Your task to perform on an android device: install app "Firefox Browser" Image 0: 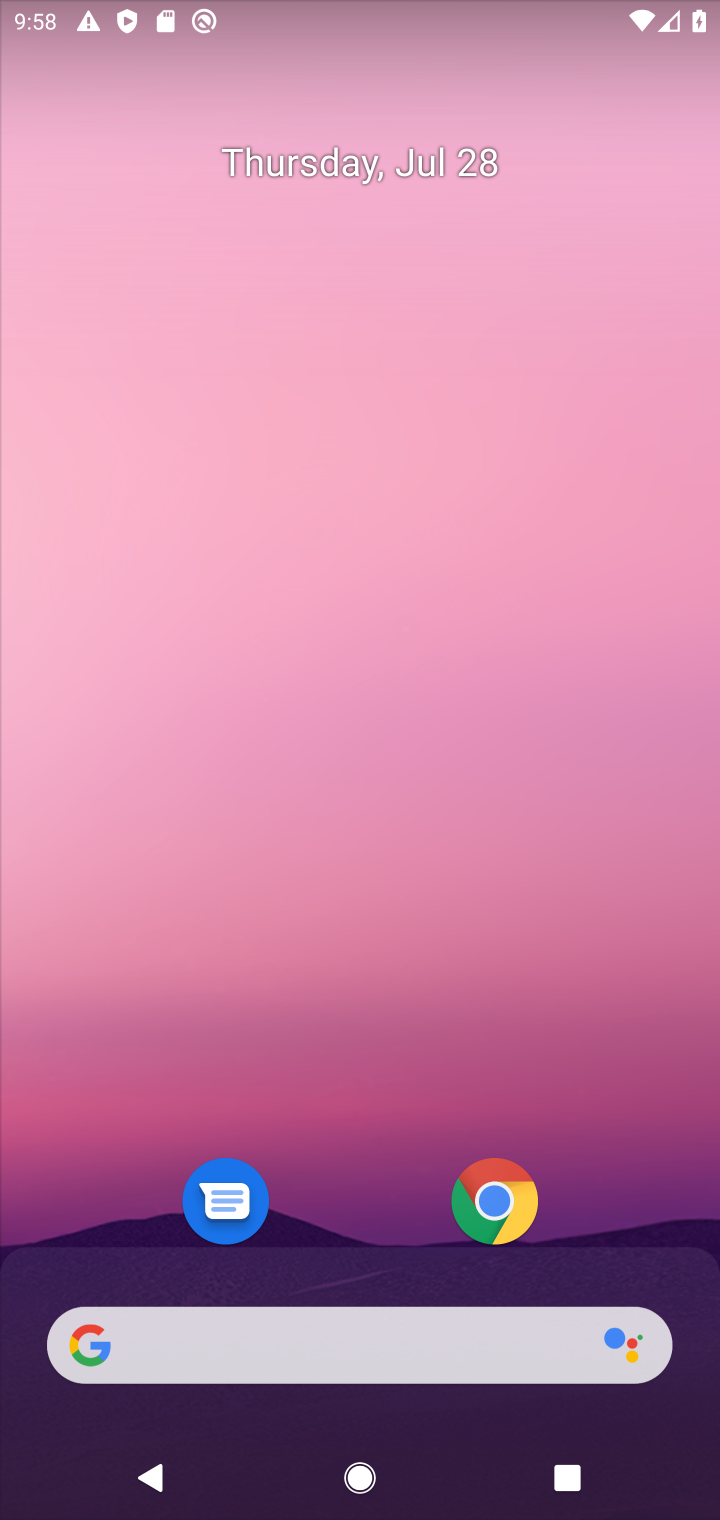
Step 0: drag from (313, 1259) to (352, 447)
Your task to perform on an android device: install app "Firefox Browser" Image 1: 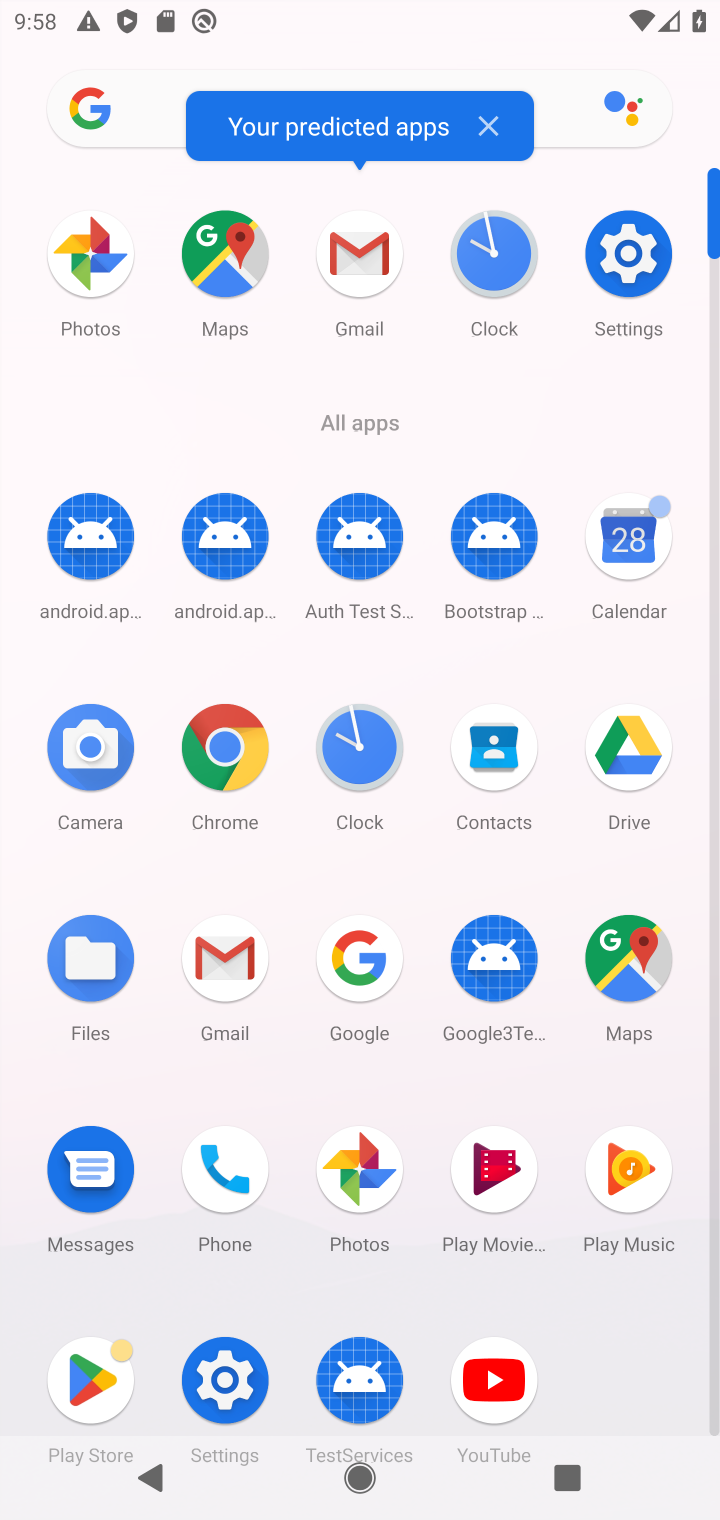
Step 1: drag from (285, 968) to (379, 477)
Your task to perform on an android device: install app "Firefox Browser" Image 2: 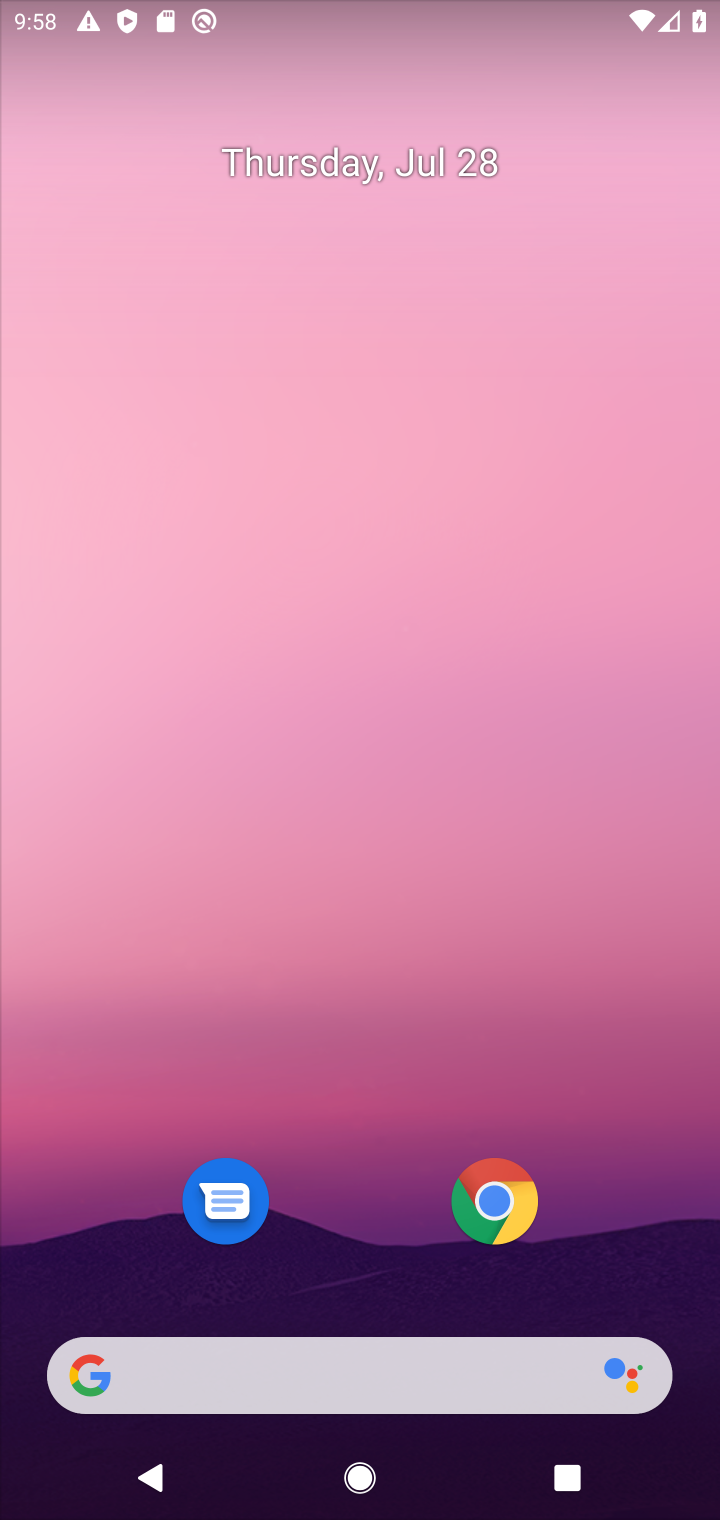
Step 2: drag from (356, 1444) to (368, 453)
Your task to perform on an android device: install app "Firefox Browser" Image 3: 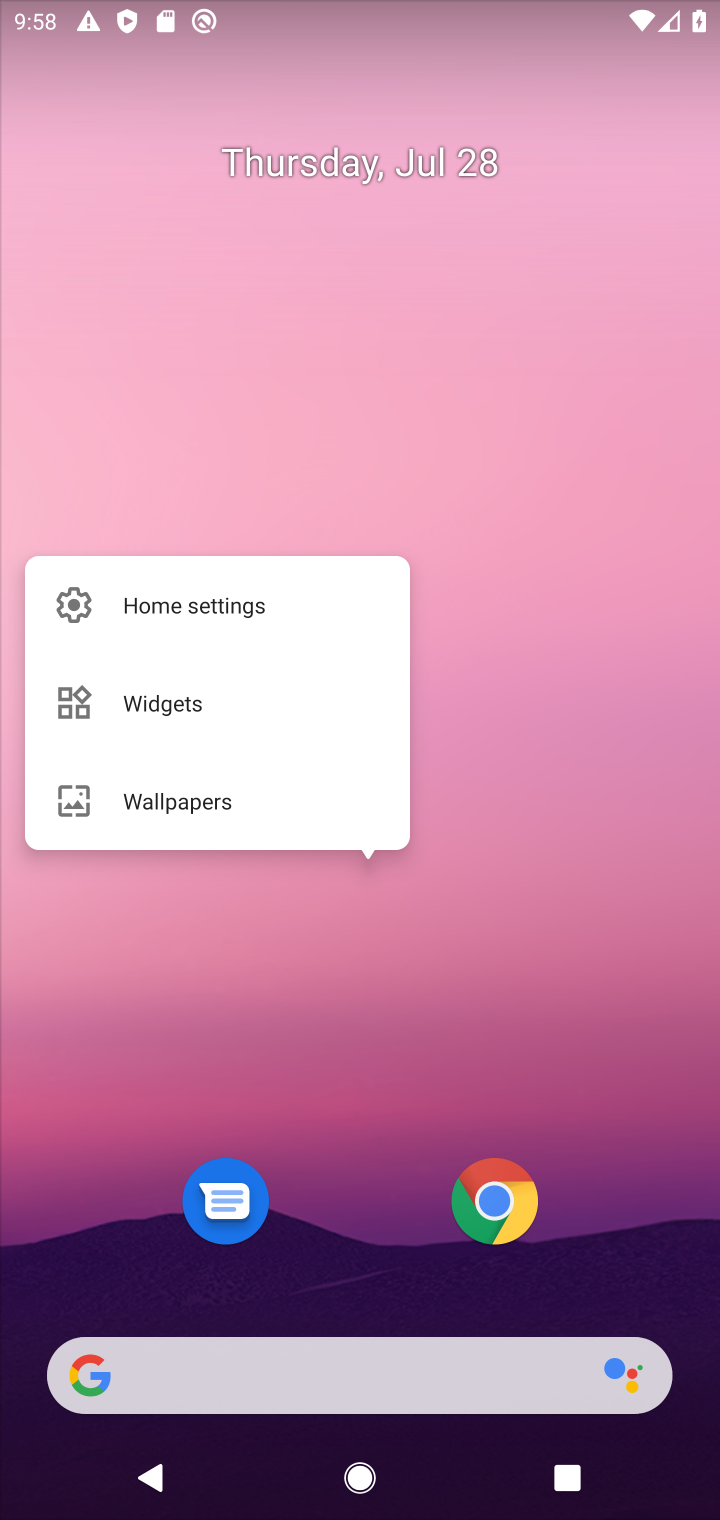
Step 3: click (646, 919)
Your task to perform on an android device: install app "Firefox Browser" Image 4: 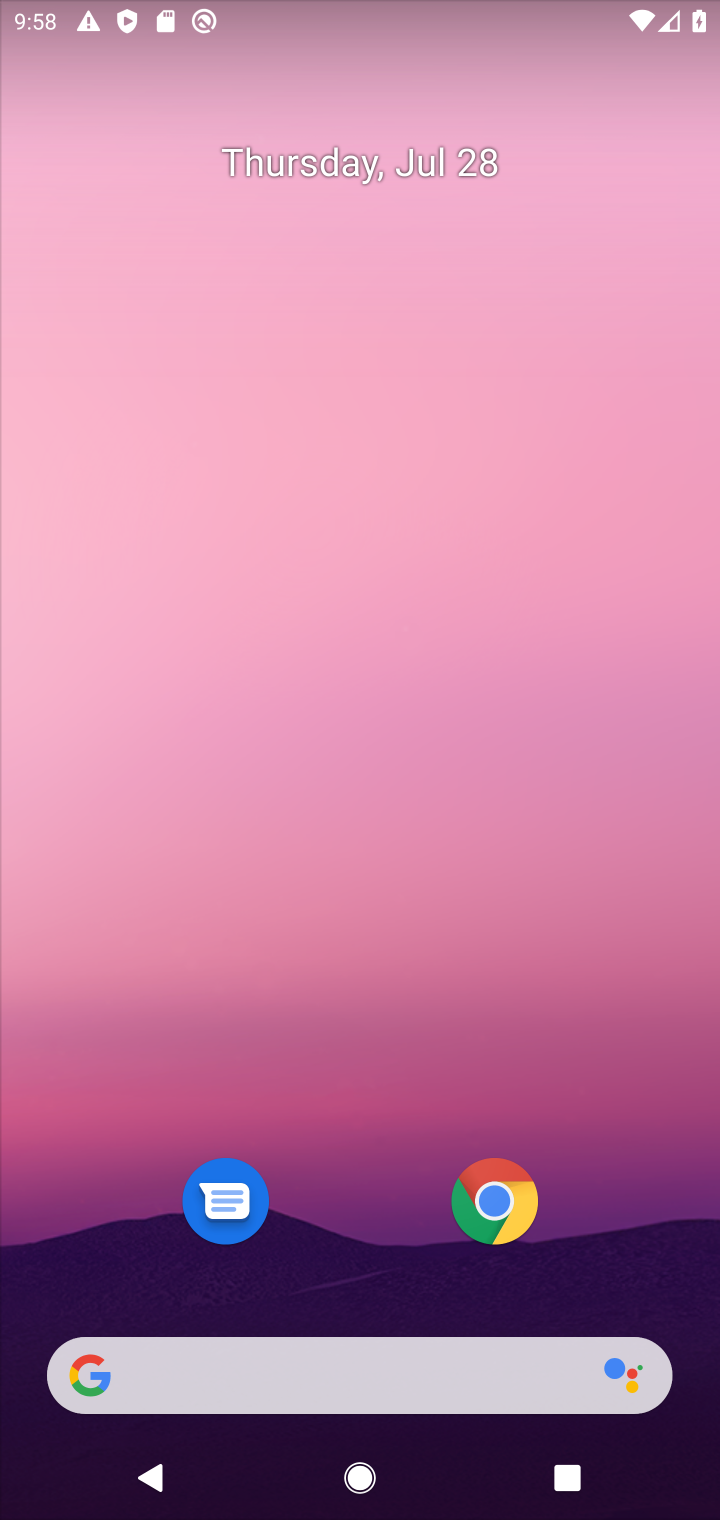
Step 4: drag from (333, 1385) to (291, 151)
Your task to perform on an android device: install app "Firefox Browser" Image 5: 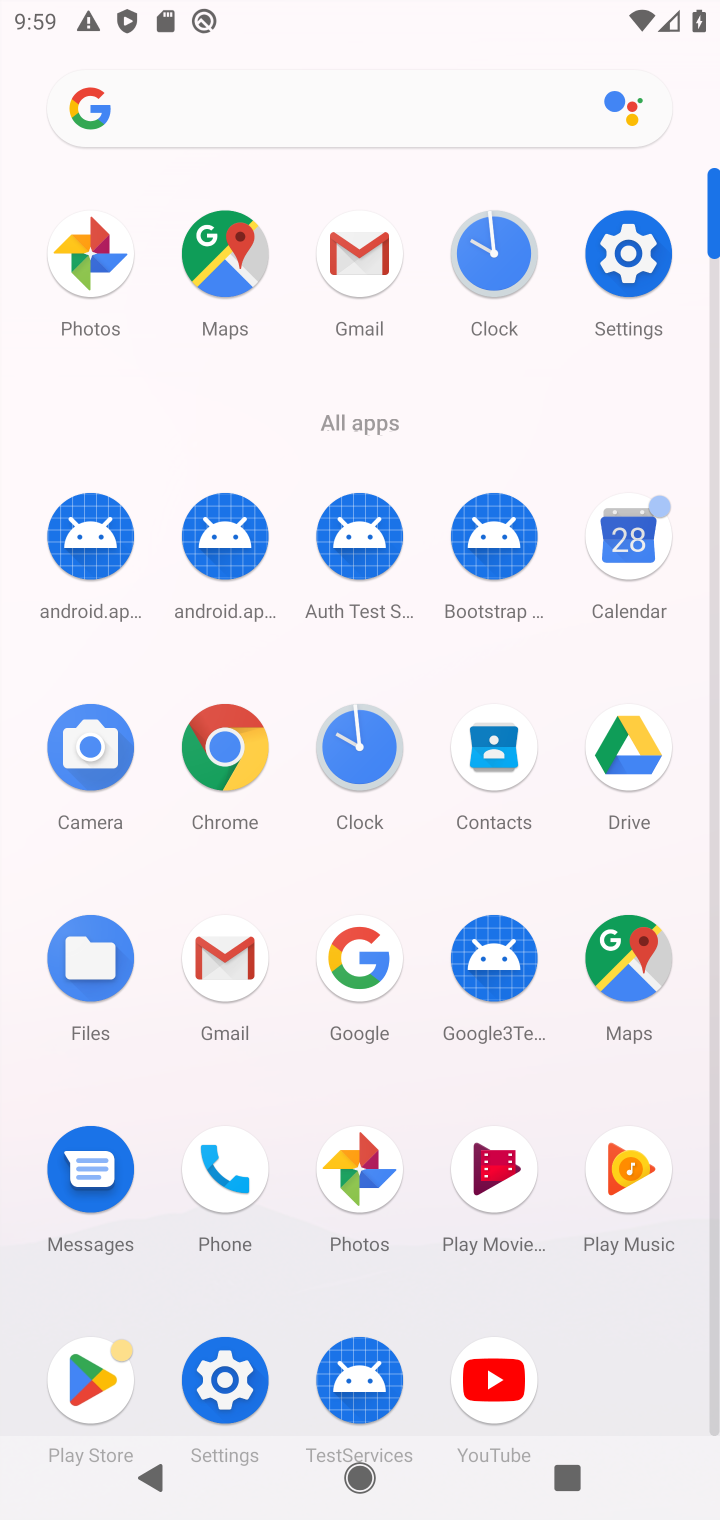
Step 5: click (71, 1370)
Your task to perform on an android device: install app "Firefox Browser" Image 6: 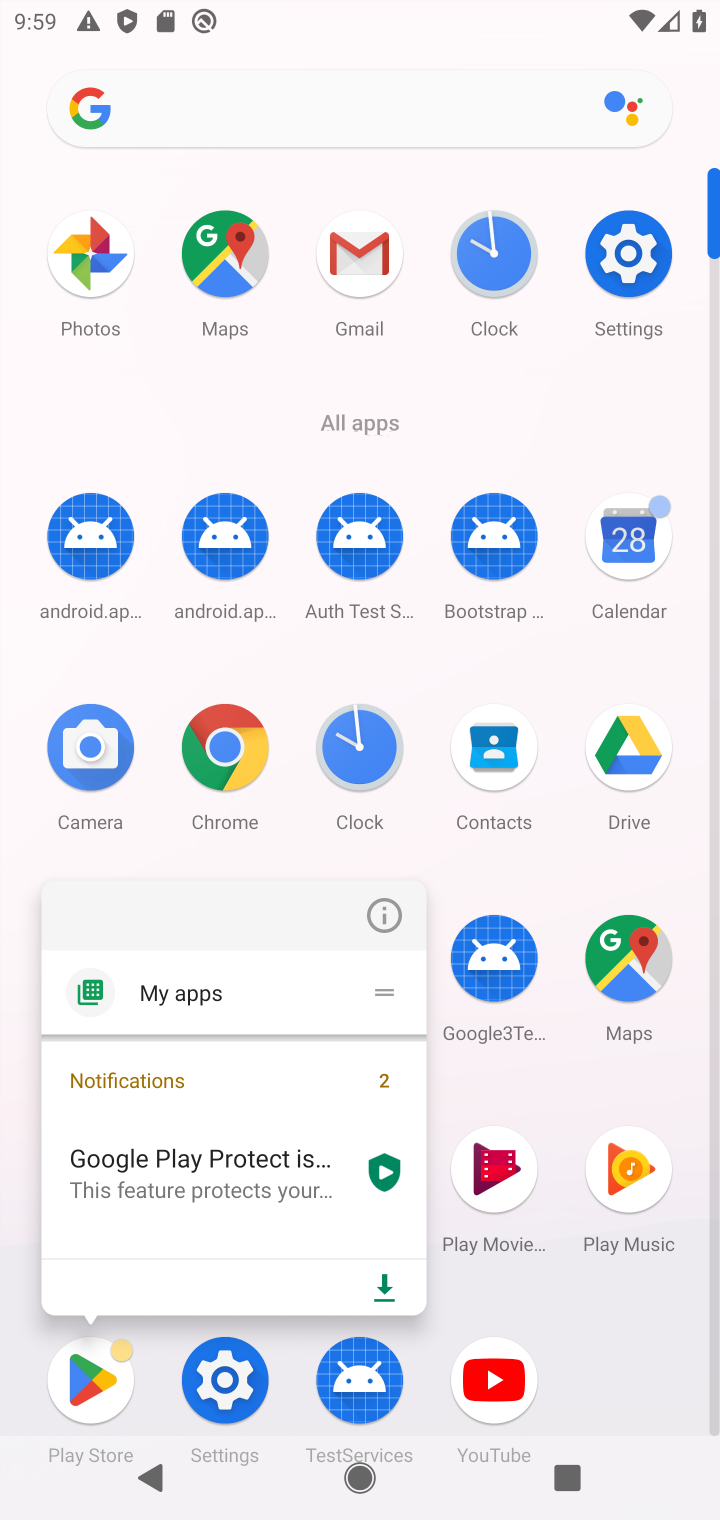
Step 6: click (121, 1412)
Your task to perform on an android device: install app "Firefox Browser" Image 7: 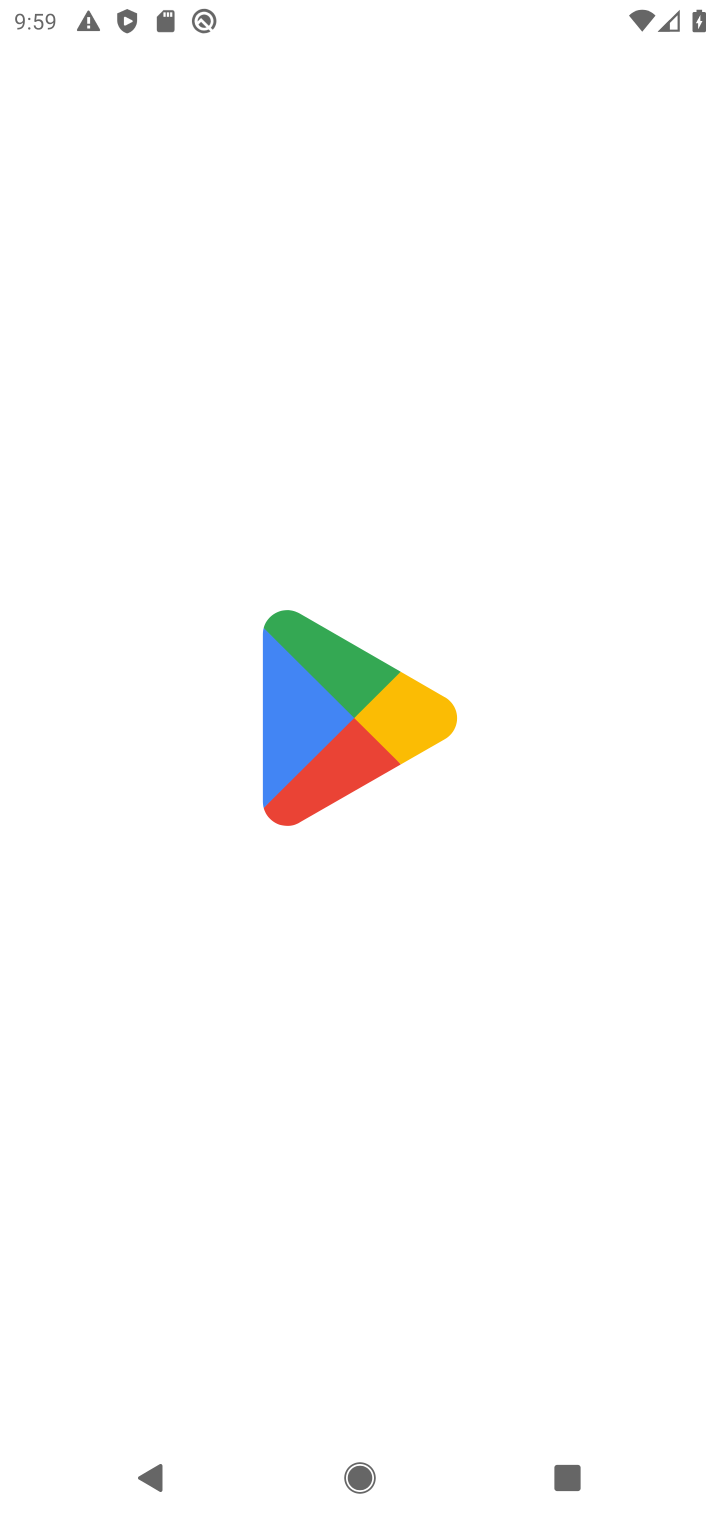
Step 7: click (112, 1398)
Your task to perform on an android device: install app "Firefox Browser" Image 8: 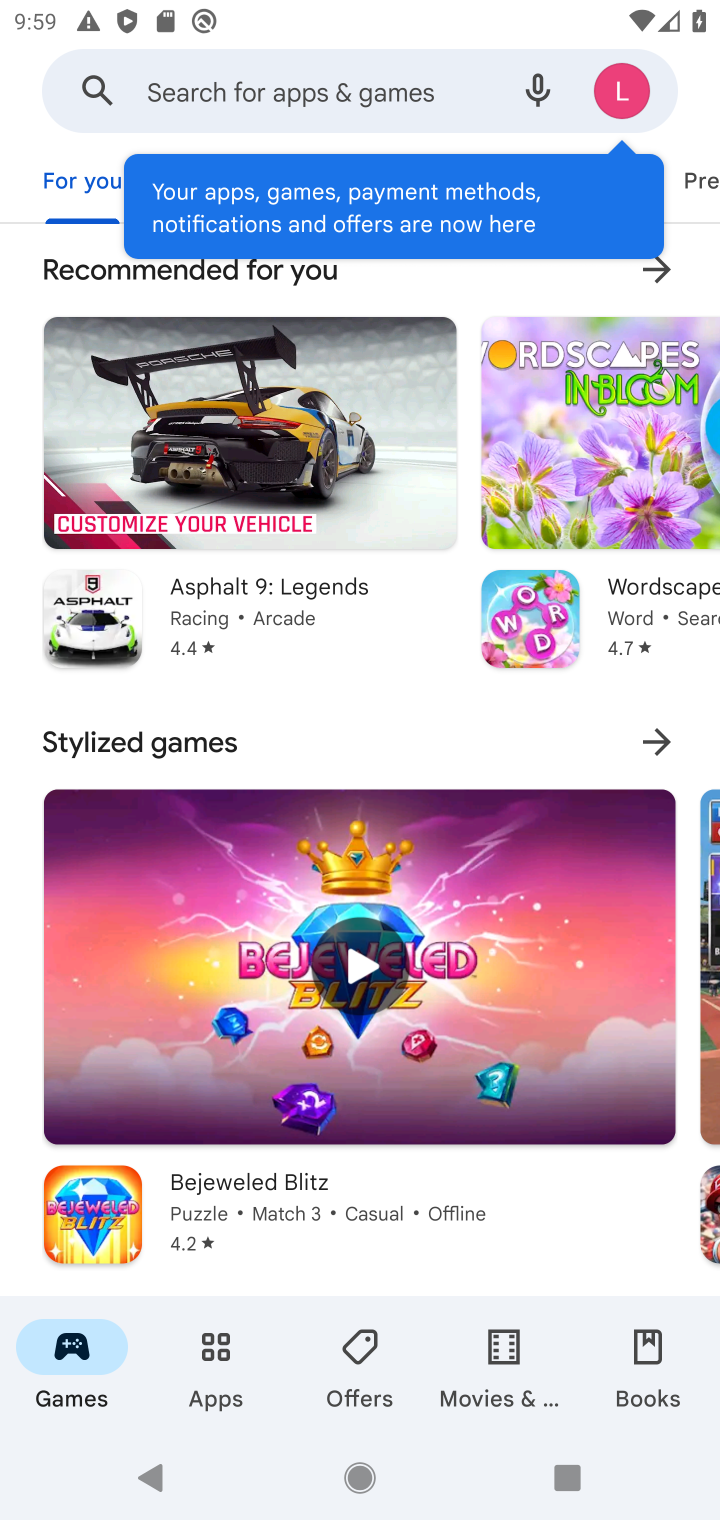
Step 8: click (350, 97)
Your task to perform on an android device: install app "Firefox Browser" Image 9: 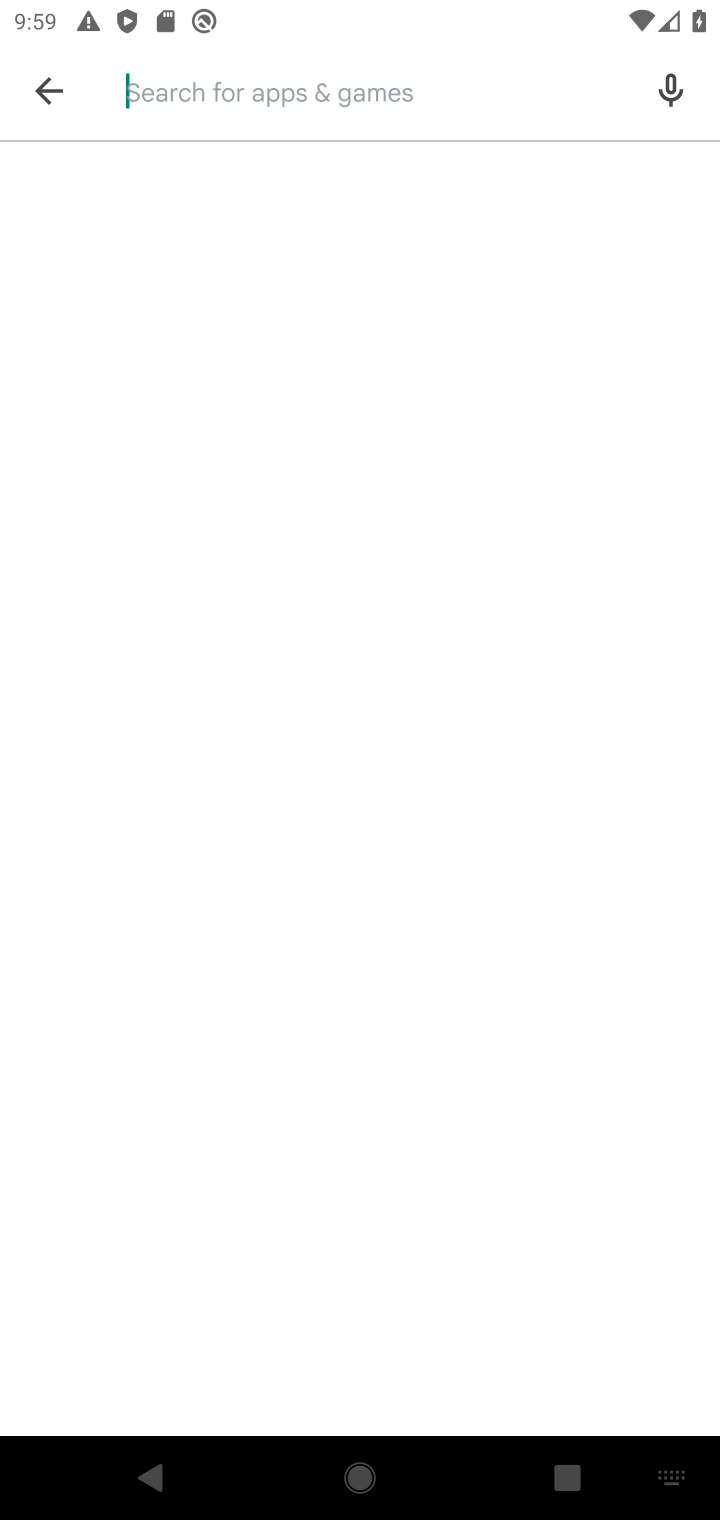
Step 9: type "Firefox Browser"
Your task to perform on an android device: install app "Firefox Browser" Image 10: 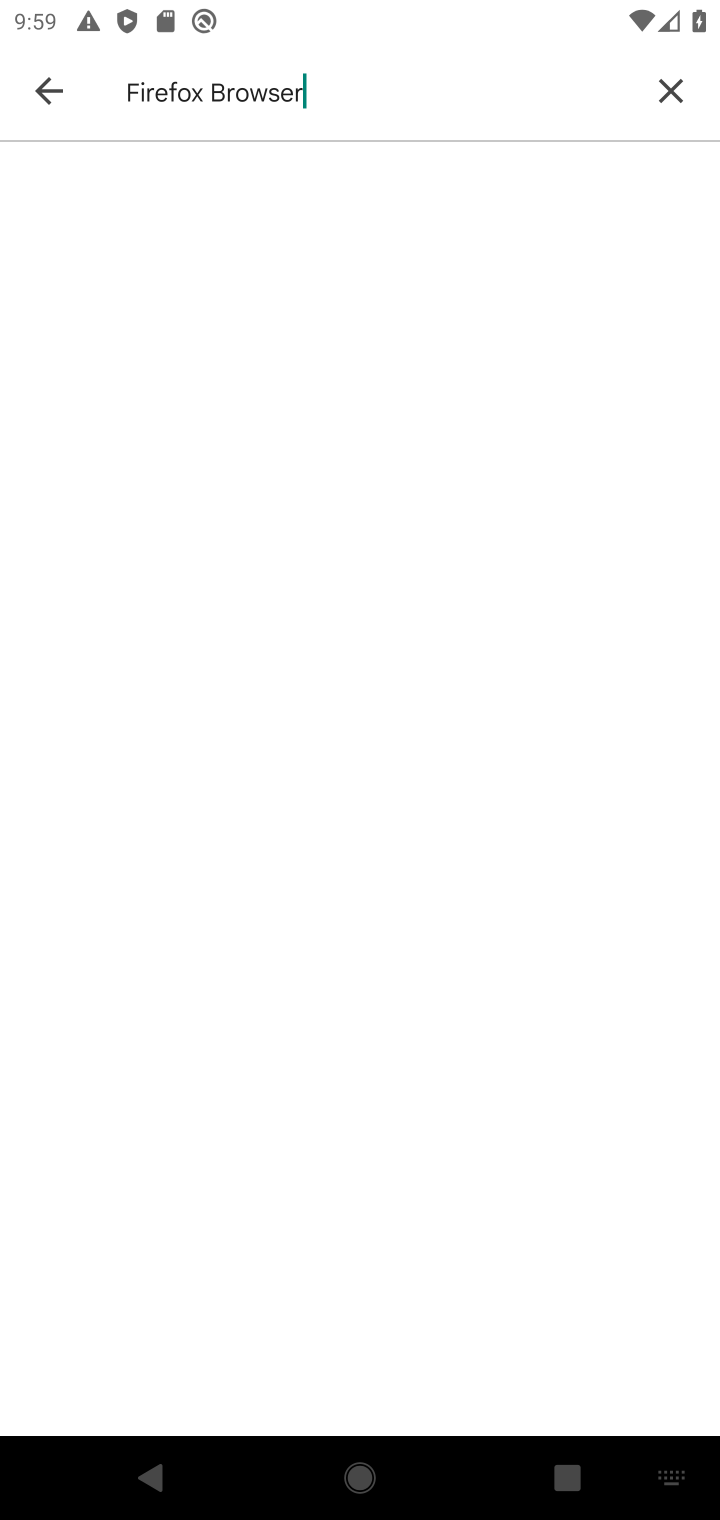
Step 10: type ""
Your task to perform on an android device: install app "Firefox Browser" Image 11: 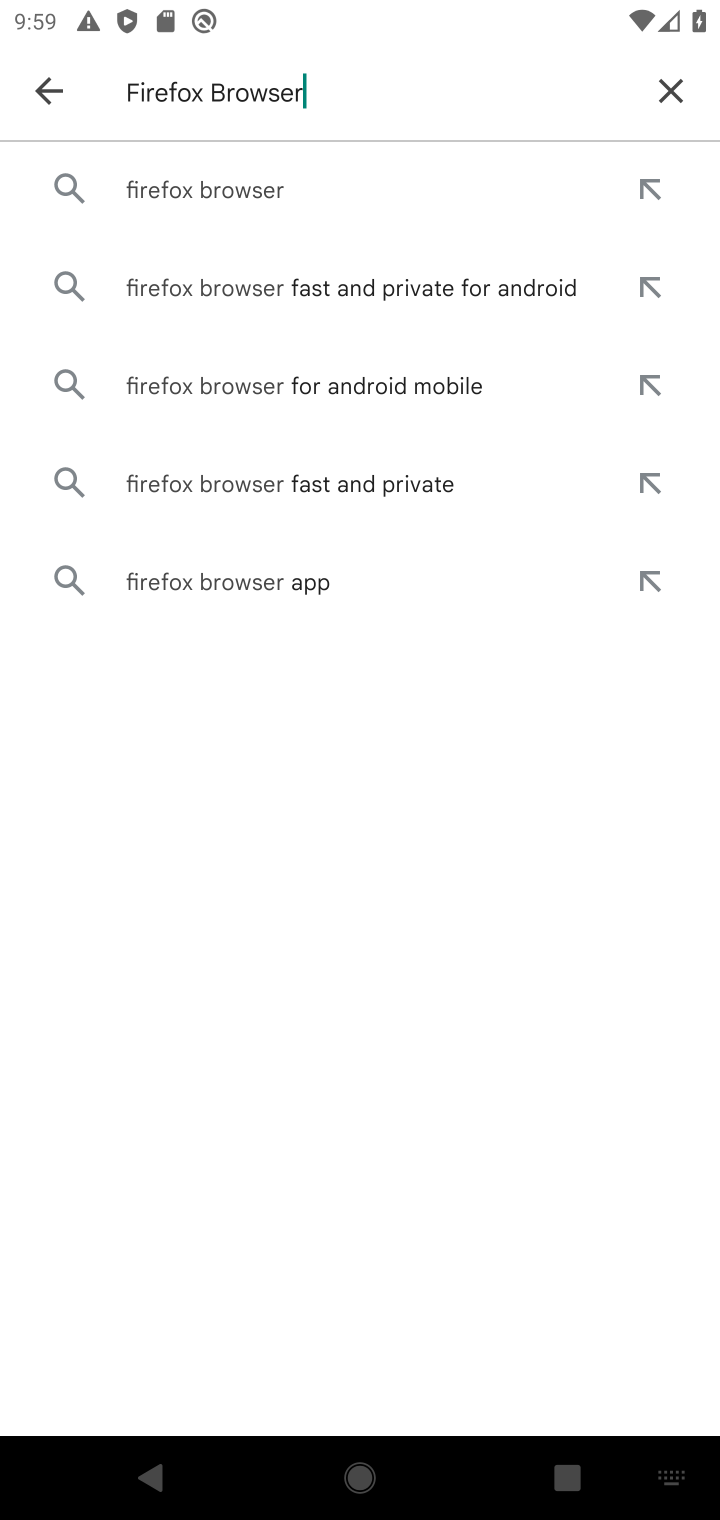
Step 11: click (361, 152)
Your task to perform on an android device: install app "Firefox Browser" Image 12: 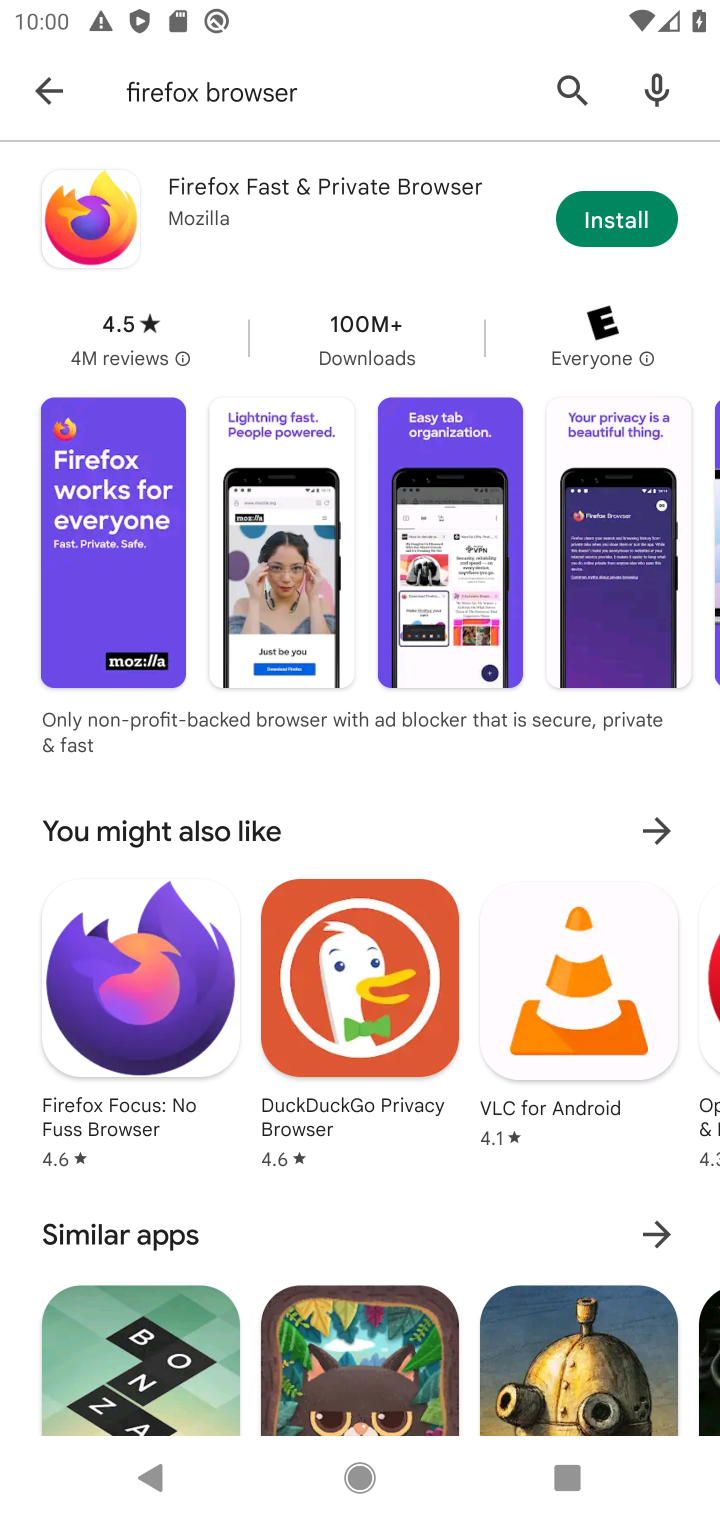
Step 12: click (597, 210)
Your task to perform on an android device: install app "Firefox Browser" Image 13: 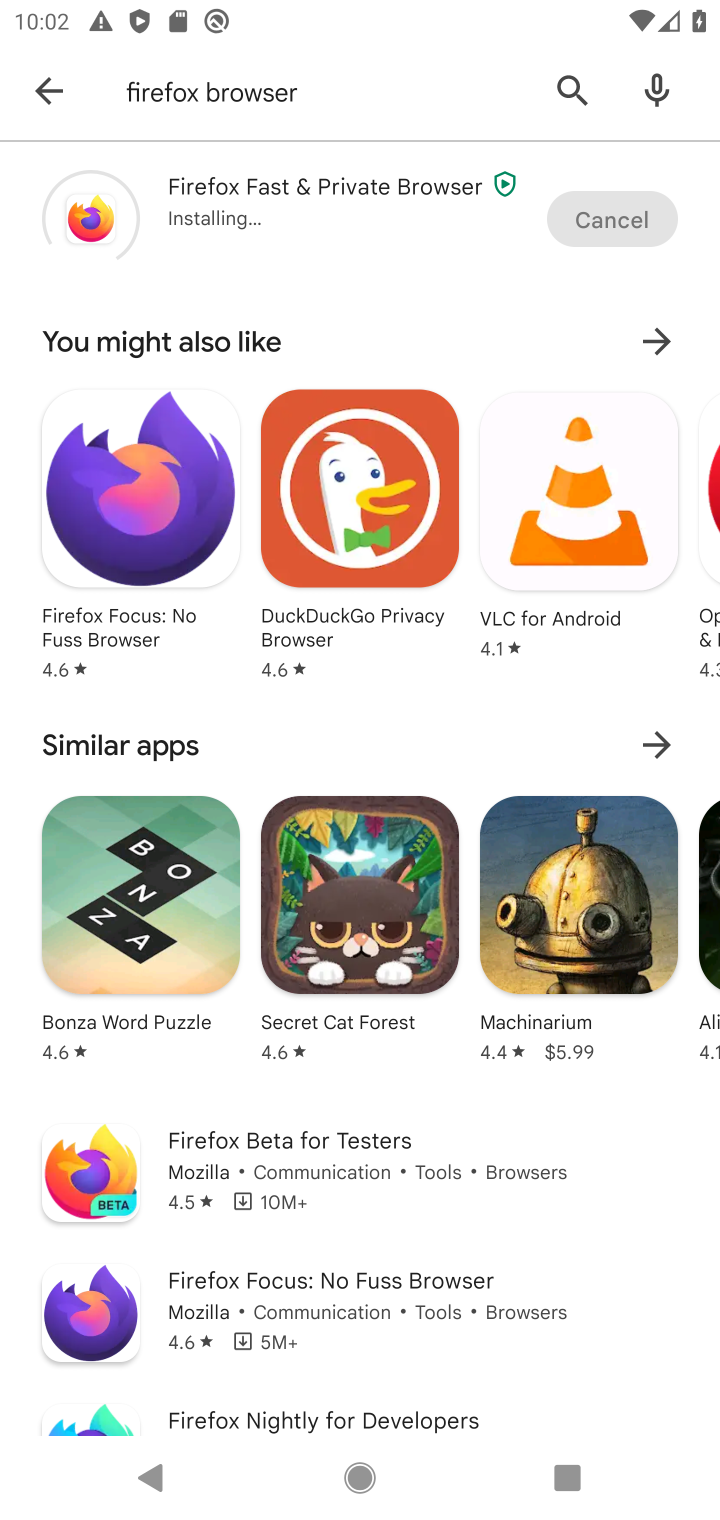
Step 13: task complete